Your task to perform on an android device: Is it going to rain this weekend? Image 0: 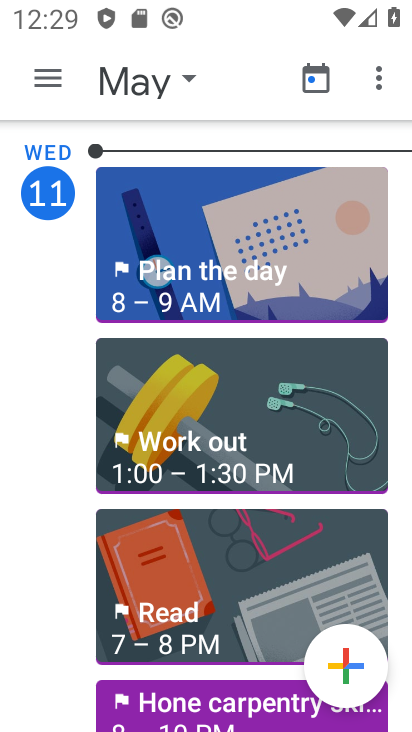
Step 0: press back button
Your task to perform on an android device: Is it going to rain this weekend? Image 1: 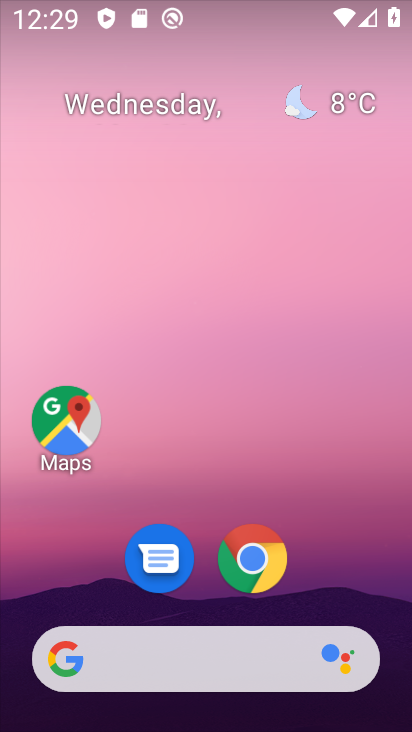
Step 1: click (252, 552)
Your task to perform on an android device: Is it going to rain this weekend? Image 2: 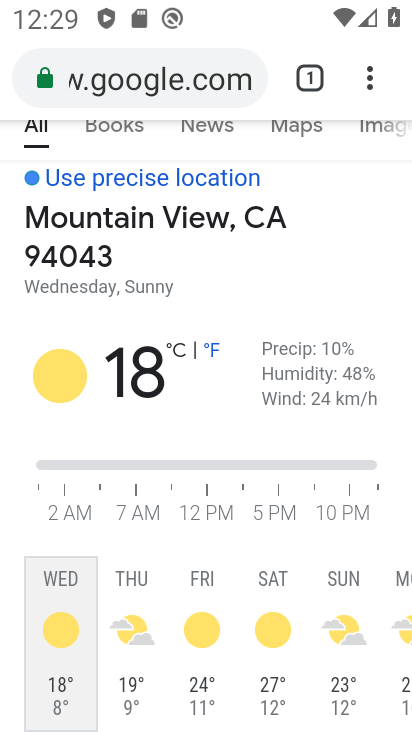
Step 2: click (179, 67)
Your task to perform on an android device: Is it going to rain this weekend? Image 3: 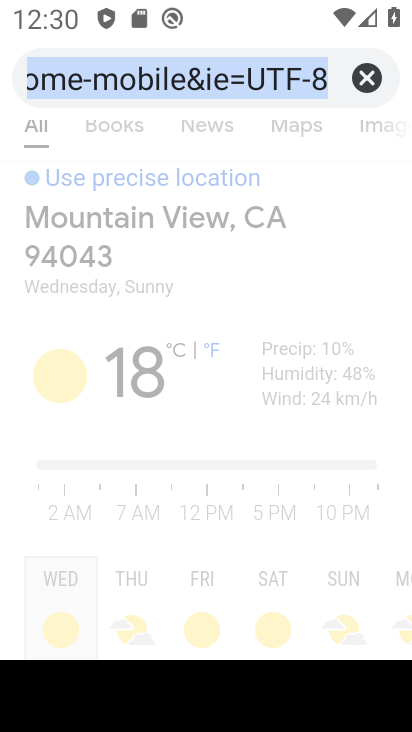
Step 3: click (370, 72)
Your task to perform on an android device: Is it going to rain this weekend? Image 4: 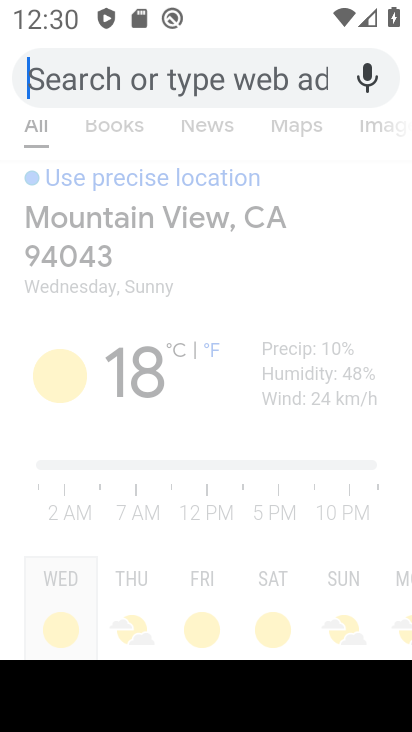
Step 4: type "Is it going to rain this weekend?"
Your task to perform on an android device: Is it going to rain this weekend? Image 5: 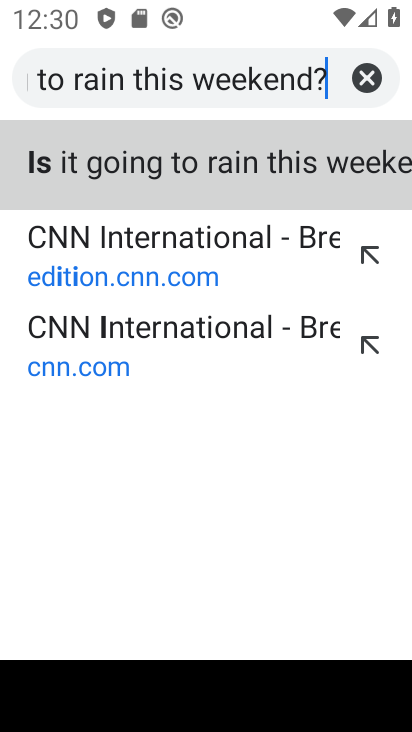
Step 5: type ""
Your task to perform on an android device: Is it going to rain this weekend? Image 6: 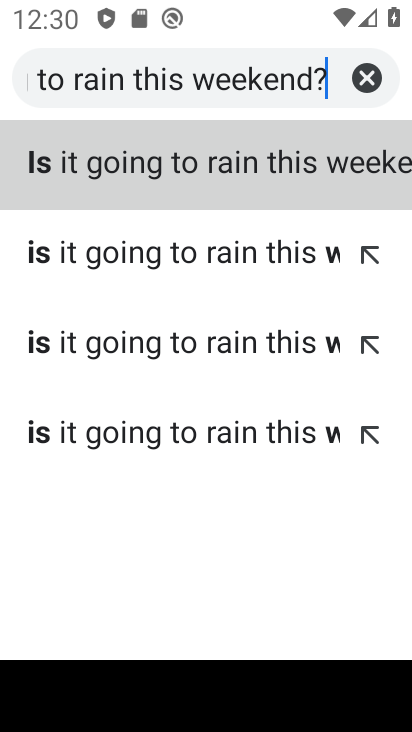
Step 6: click (167, 168)
Your task to perform on an android device: Is it going to rain this weekend? Image 7: 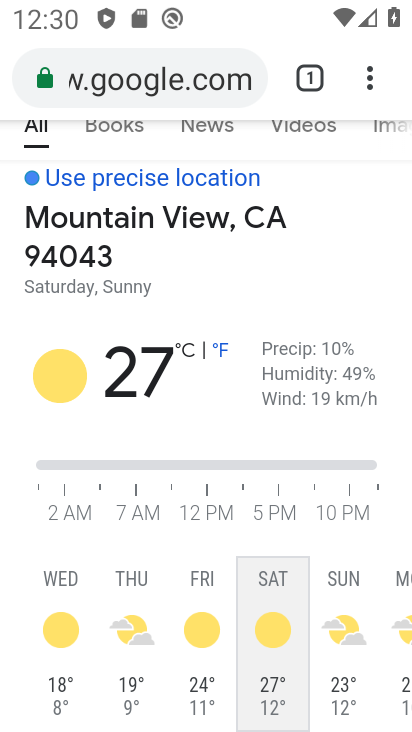
Step 7: task complete